Your task to perform on an android device: move an email to a new category in the gmail app Image 0: 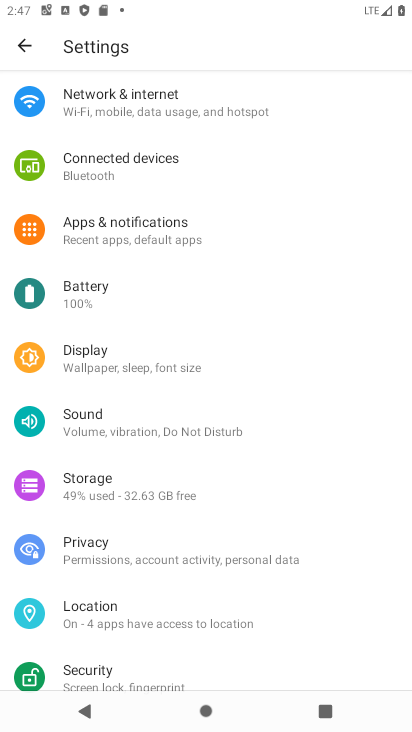
Step 0: press home button
Your task to perform on an android device: move an email to a new category in the gmail app Image 1: 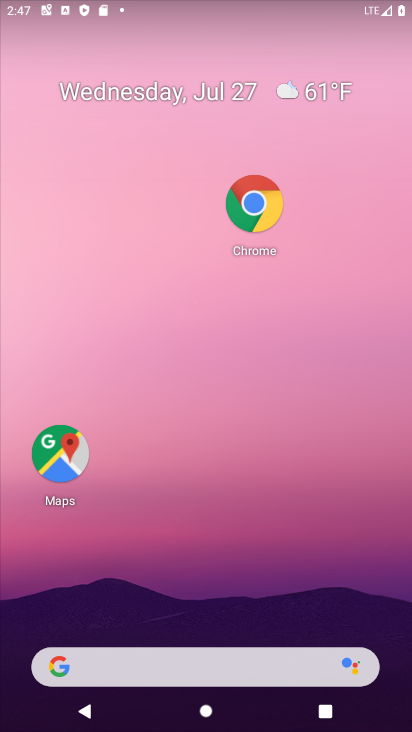
Step 1: drag from (234, 593) to (234, 182)
Your task to perform on an android device: move an email to a new category in the gmail app Image 2: 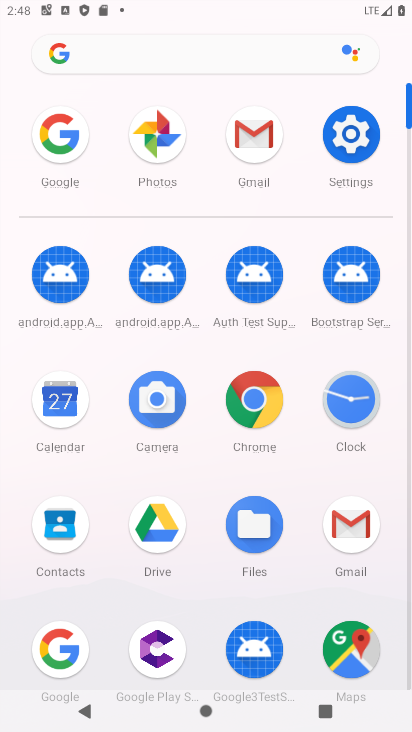
Step 2: click (258, 154)
Your task to perform on an android device: move an email to a new category in the gmail app Image 3: 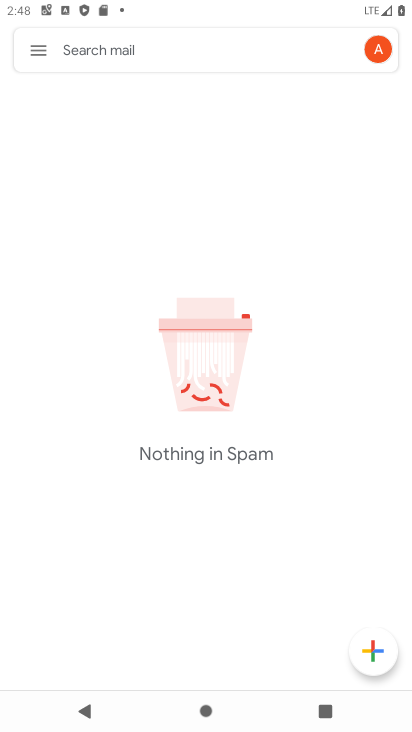
Step 3: click (43, 45)
Your task to perform on an android device: move an email to a new category in the gmail app Image 4: 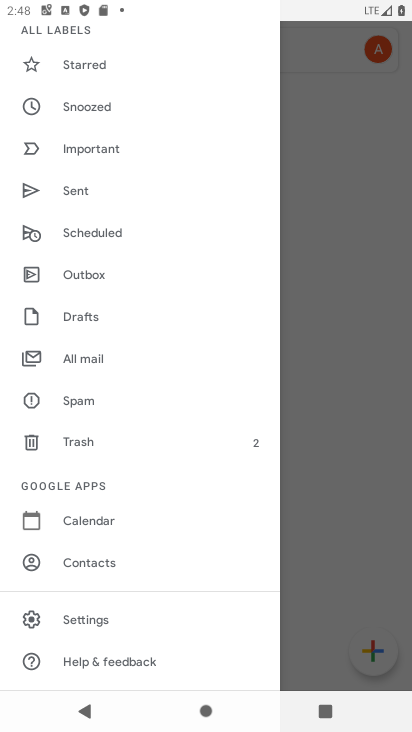
Step 4: click (77, 364)
Your task to perform on an android device: move an email to a new category in the gmail app Image 5: 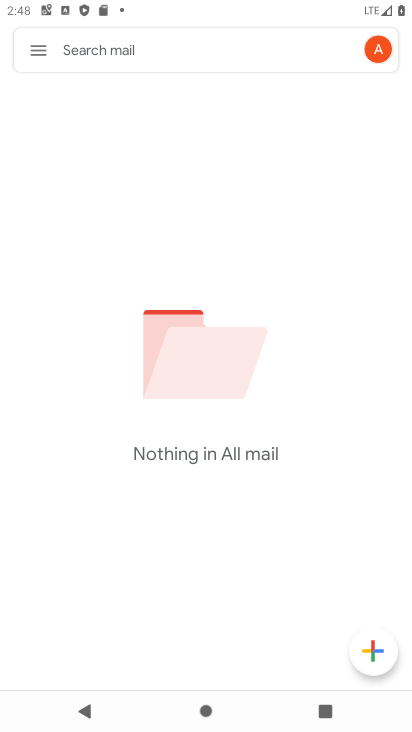
Step 5: task complete